Your task to perform on an android device: change text size in settings app Image 0: 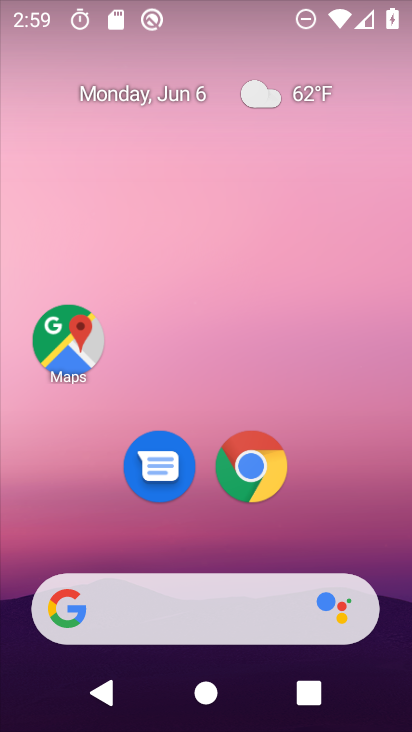
Step 0: drag from (196, 550) to (183, 59)
Your task to perform on an android device: change text size in settings app Image 1: 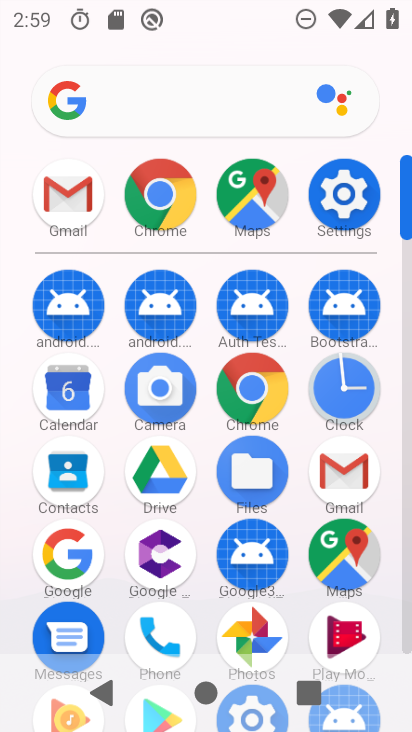
Step 1: click (343, 196)
Your task to perform on an android device: change text size in settings app Image 2: 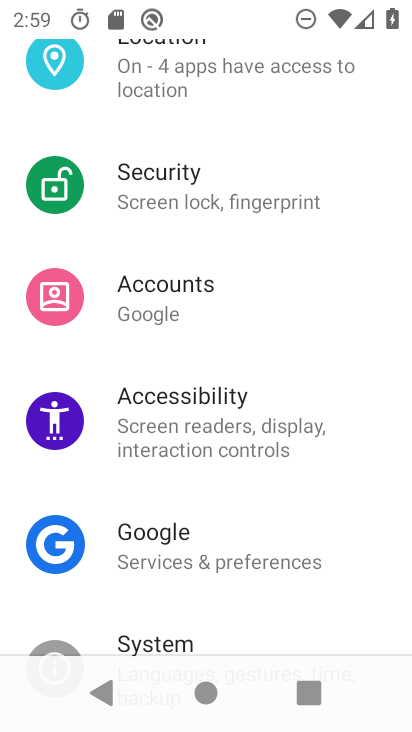
Step 2: drag from (187, 180) to (171, 503)
Your task to perform on an android device: change text size in settings app Image 3: 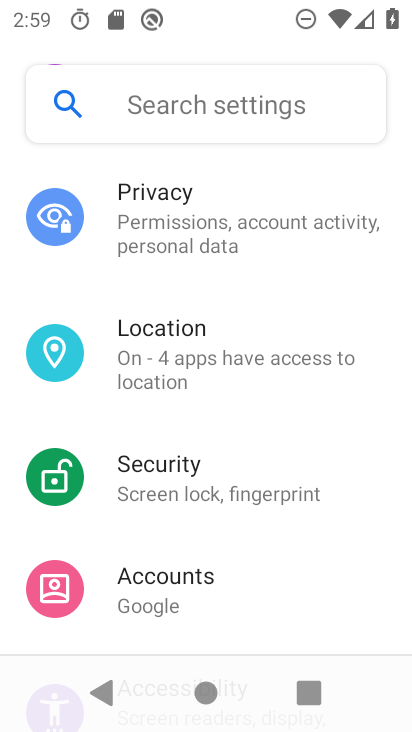
Step 3: drag from (195, 296) to (178, 596)
Your task to perform on an android device: change text size in settings app Image 4: 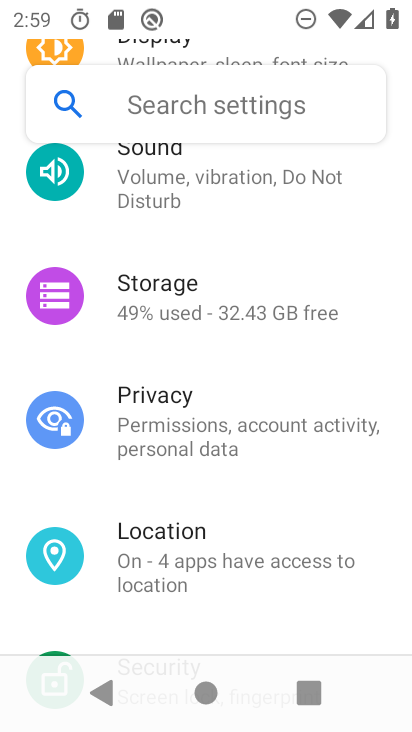
Step 4: drag from (251, 309) to (242, 583)
Your task to perform on an android device: change text size in settings app Image 5: 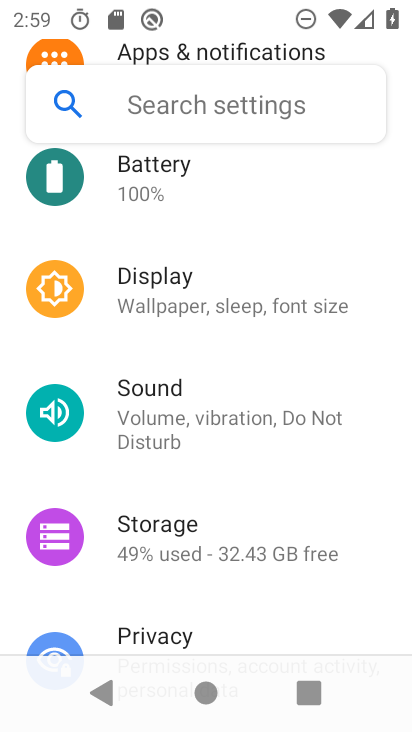
Step 5: click (154, 310)
Your task to perform on an android device: change text size in settings app Image 6: 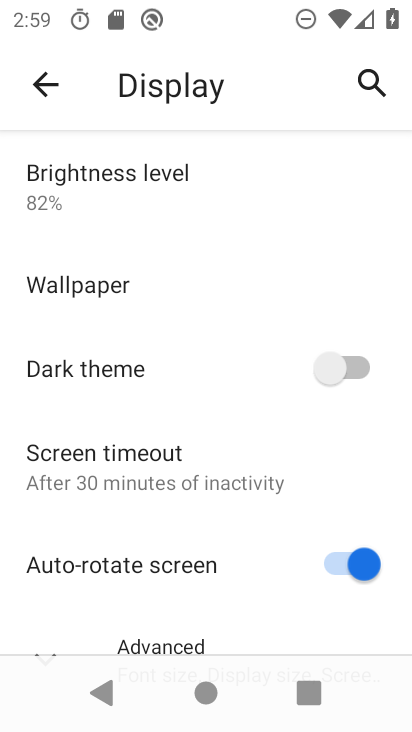
Step 6: drag from (229, 604) to (236, 308)
Your task to perform on an android device: change text size in settings app Image 7: 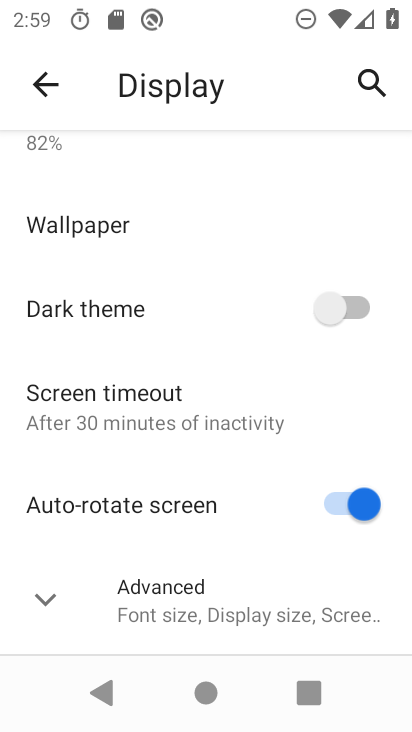
Step 7: click (152, 611)
Your task to perform on an android device: change text size in settings app Image 8: 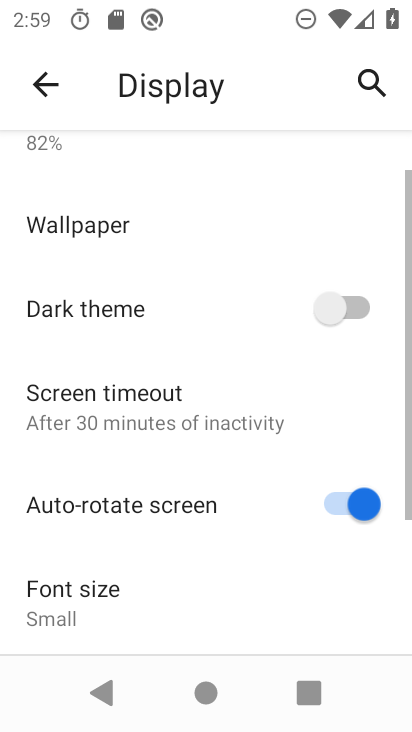
Step 8: drag from (164, 634) to (173, 332)
Your task to perform on an android device: change text size in settings app Image 9: 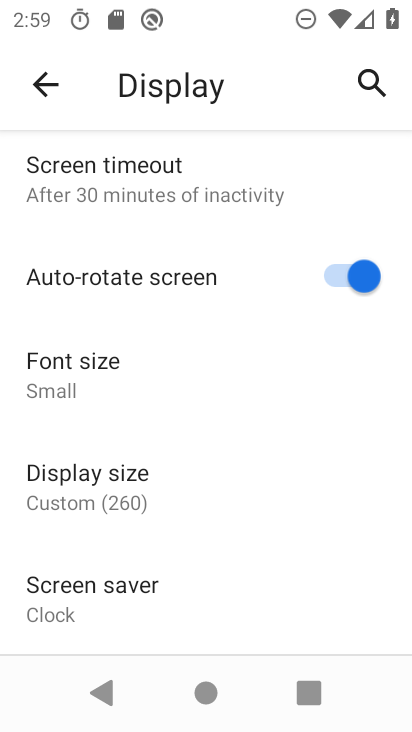
Step 9: click (90, 377)
Your task to perform on an android device: change text size in settings app Image 10: 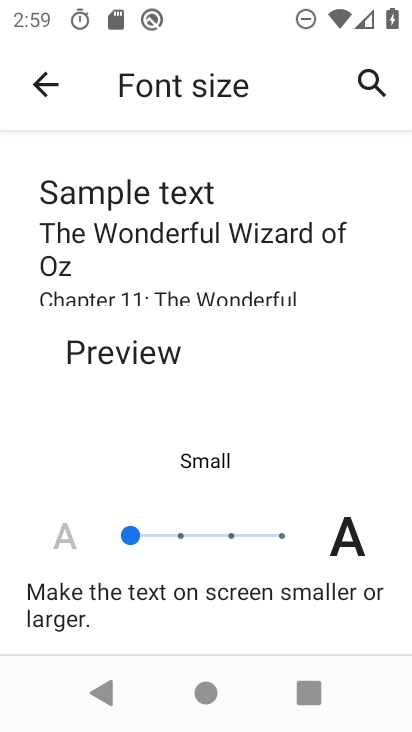
Step 10: click (185, 536)
Your task to perform on an android device: change text size in settings app Image 11: 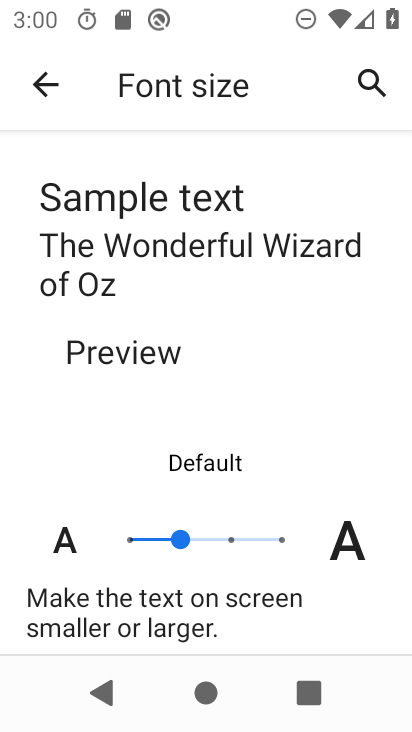
Step 11: task complete